Your task to perform on an android device: delete a single message in the gmail app Image 0: 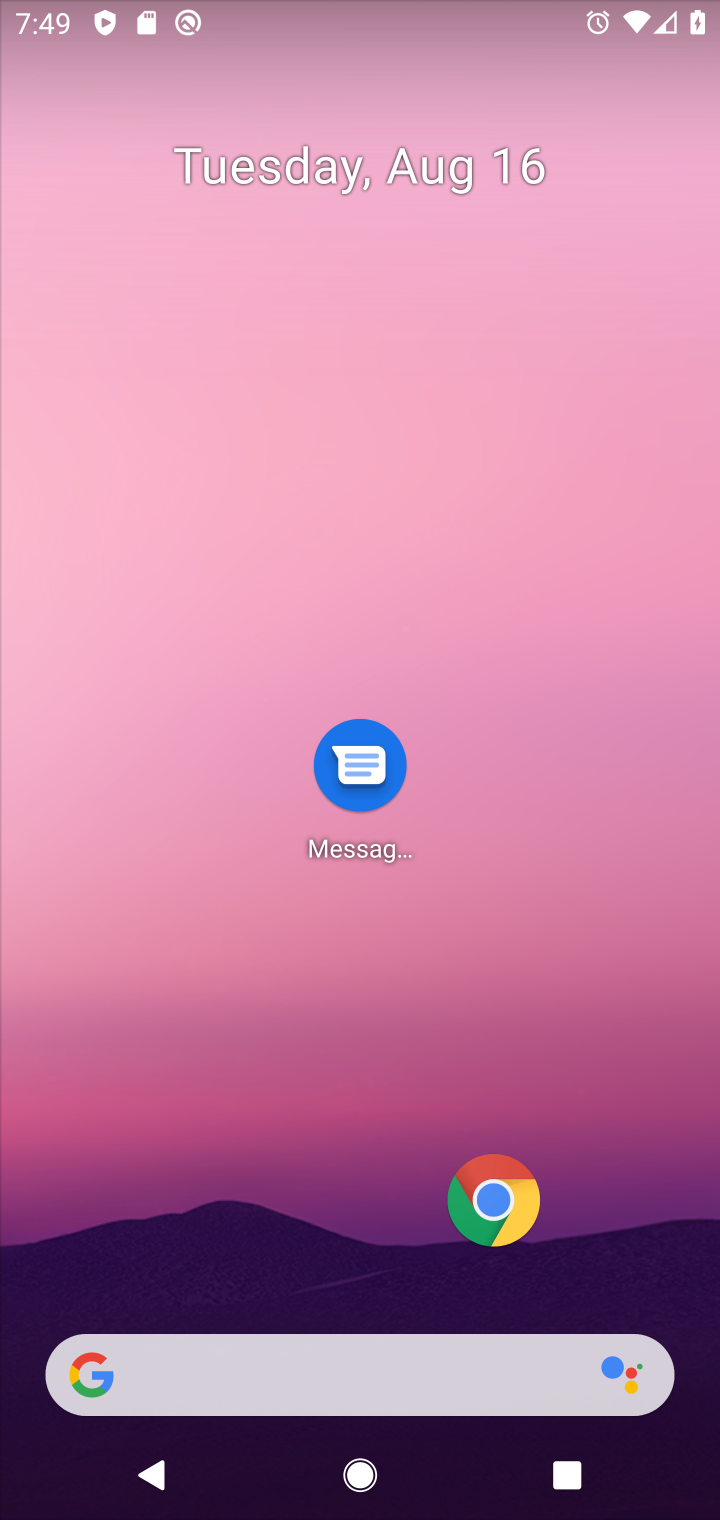
Step 0: drag from (80, 1407) to (665, 118)
Your task to perform on an android device: delete a single message in the gmail app Image 1: 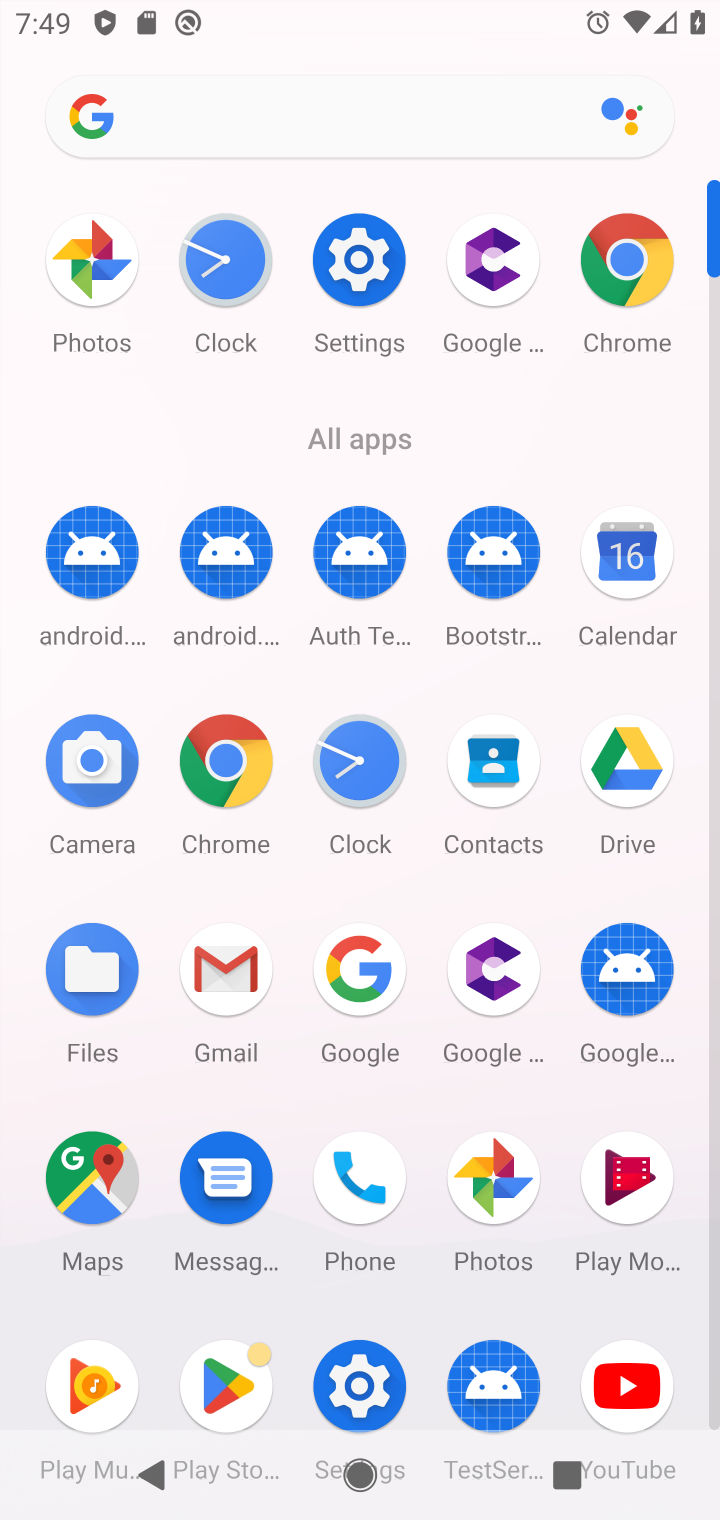
Step 1: click (208, 975)
Your task to perform on an android device: delete a single message in the gmail app Image 2: 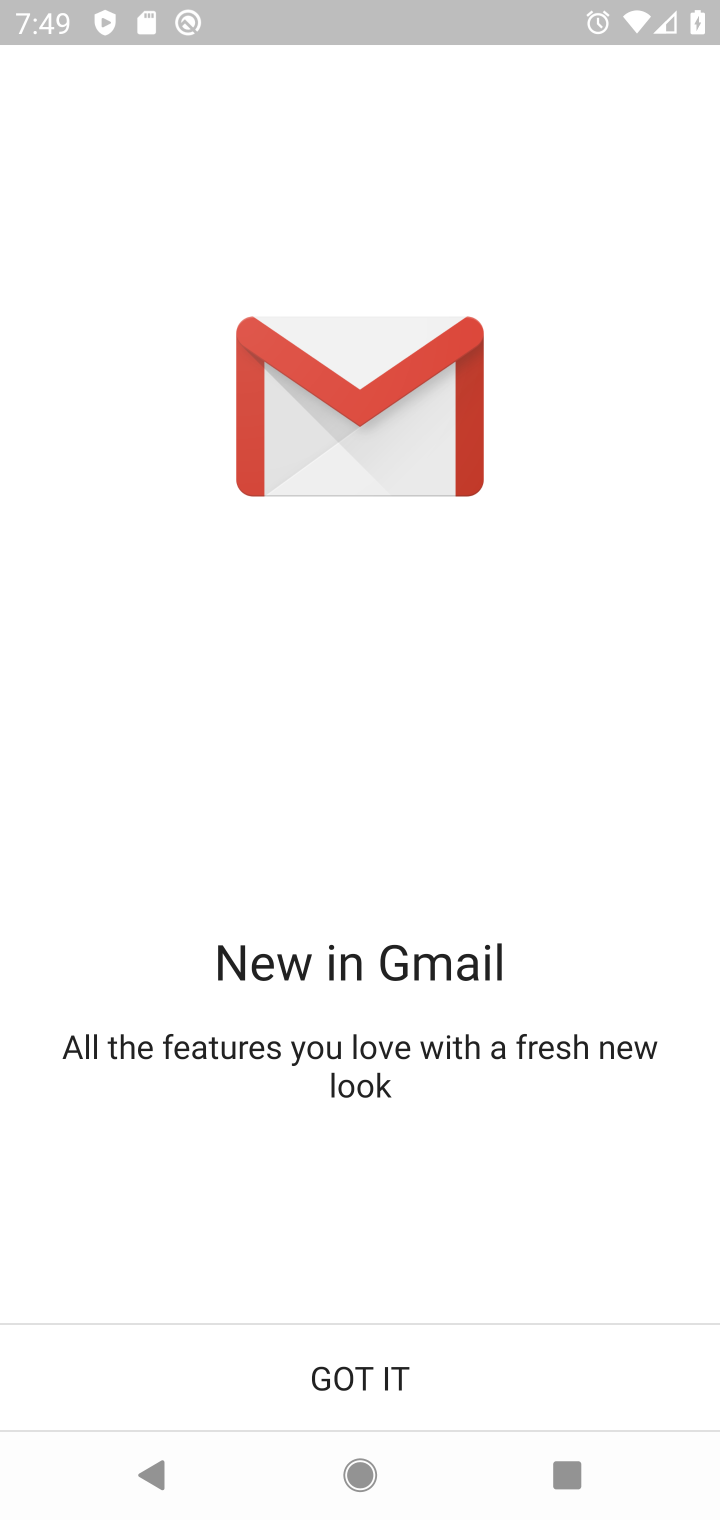
Step 2: click (360, 1375)
Your task to perform on an android device: delete a single message in the gmail app Image 3: 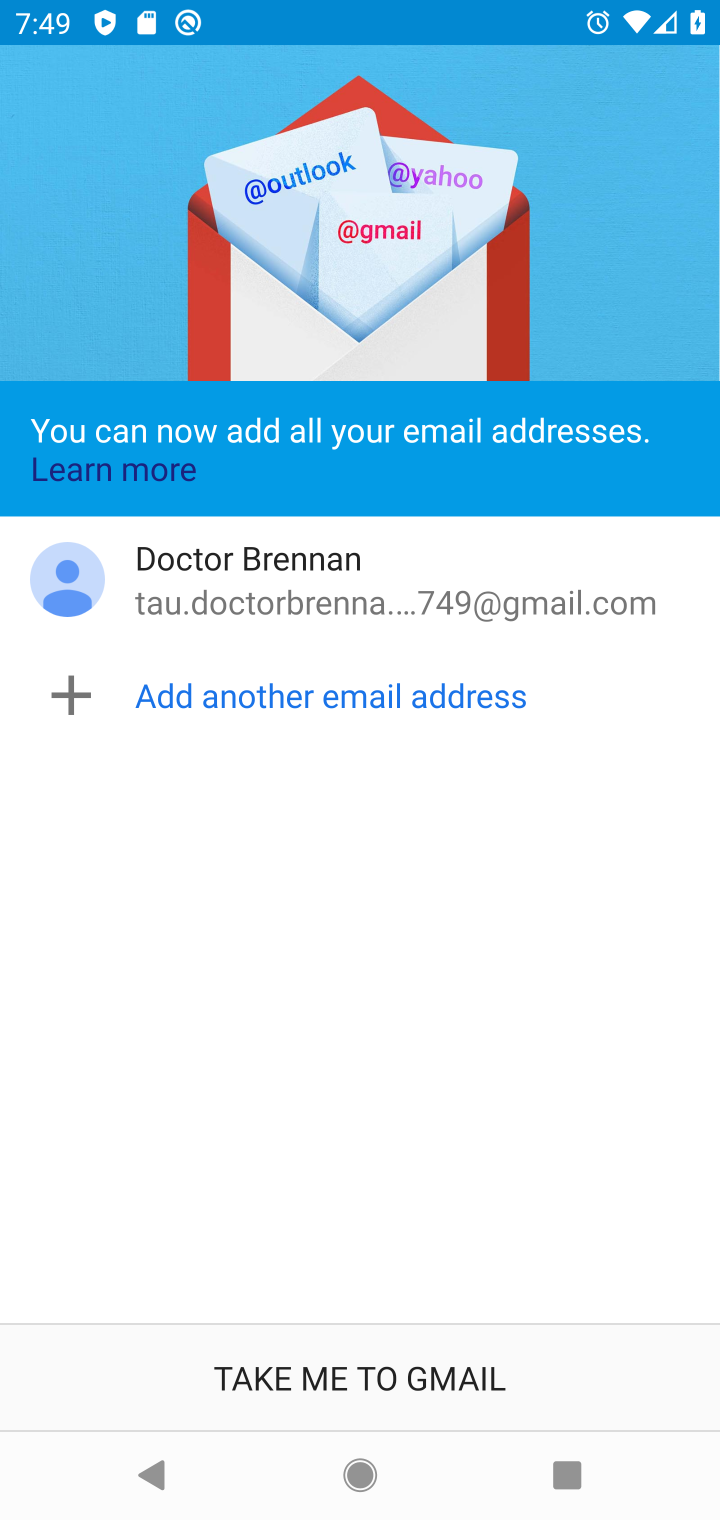
Step 3: click (360, 1375)
Your task to perform on an android device: delete a single message in the gmail app Image 4: 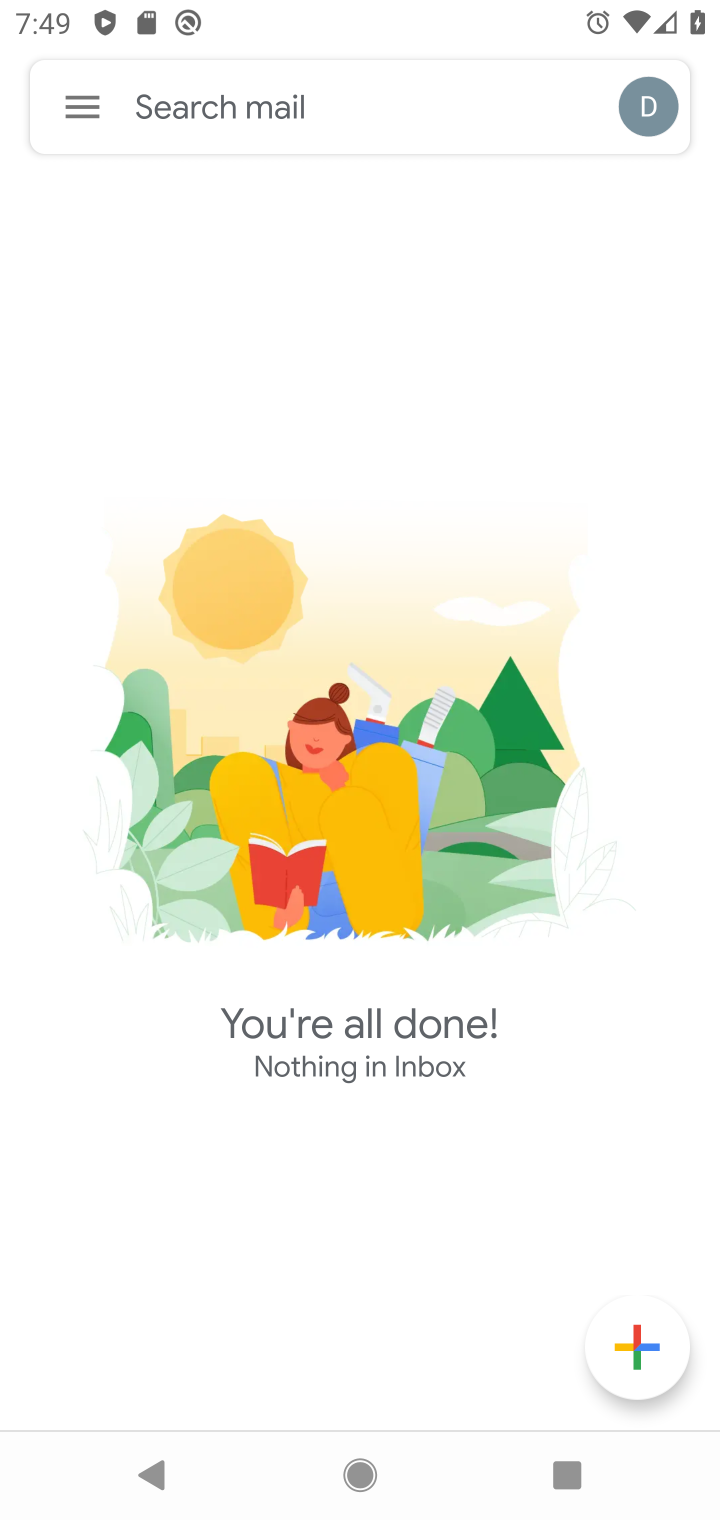
Step 4: click (83, 56)
Your task to perform on an android device: delete a single message in the gmail app Image 5: 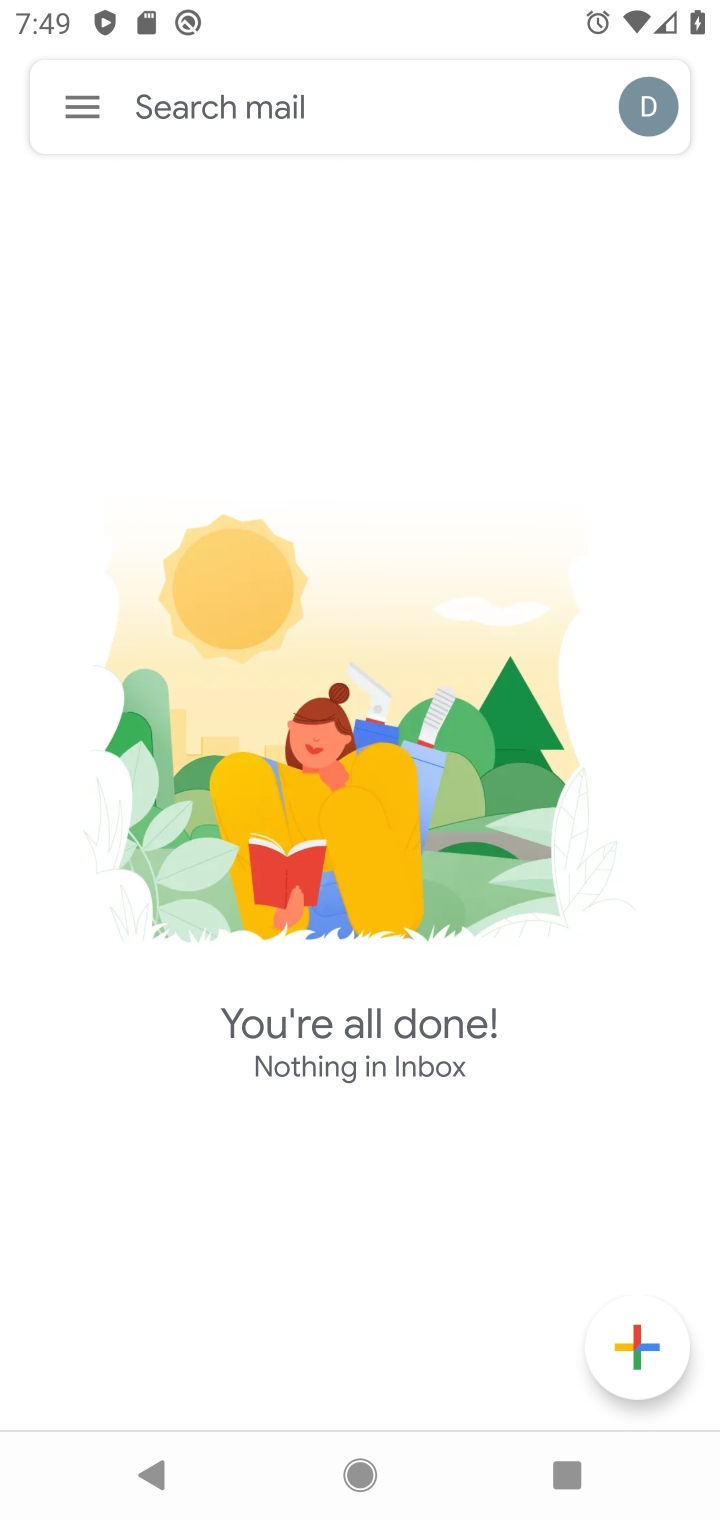
Step 5: click (99, 136)
Your task to perform on an android device: delete a single message in the gmail app Image 6: 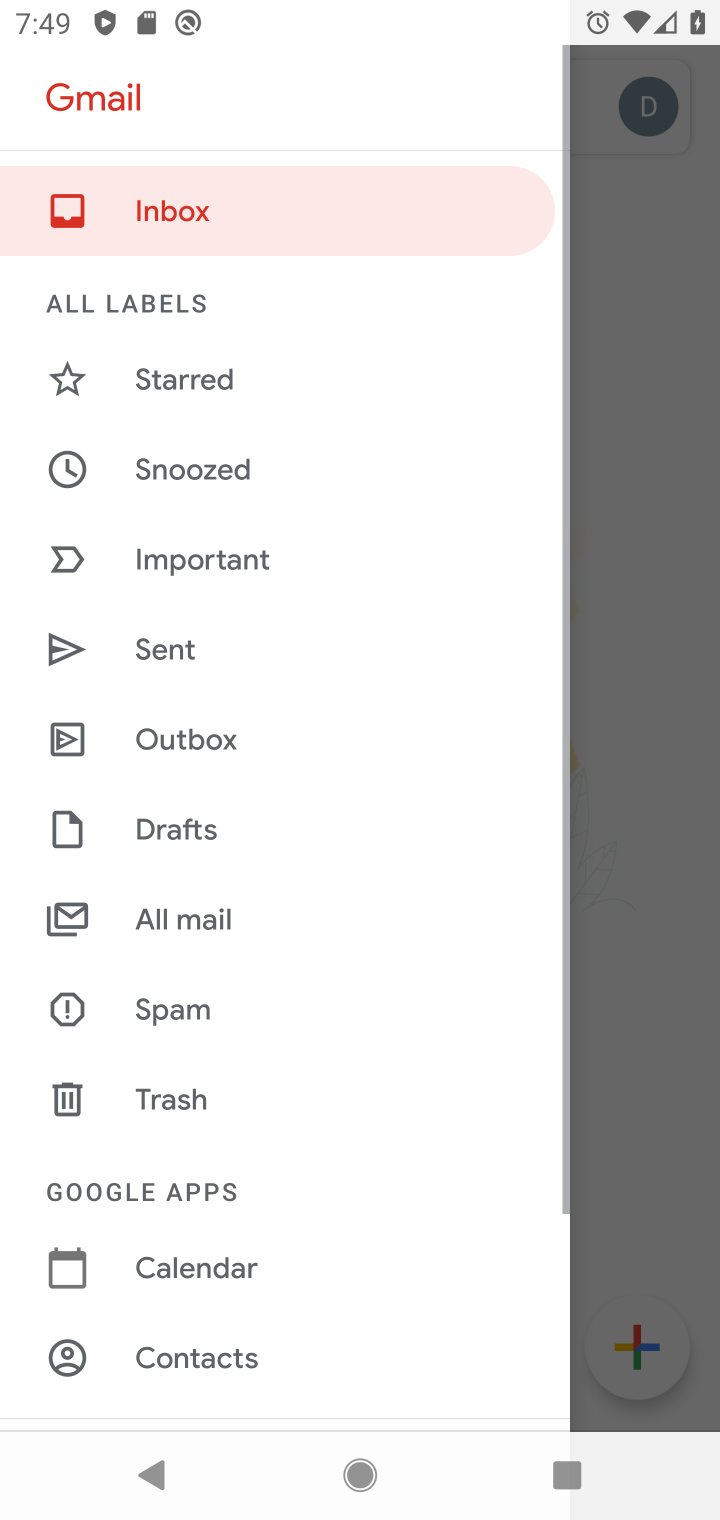
Step 6: click (84, 128)
Your task to perform on an android device: delete a single message in the gmail app Image 7: 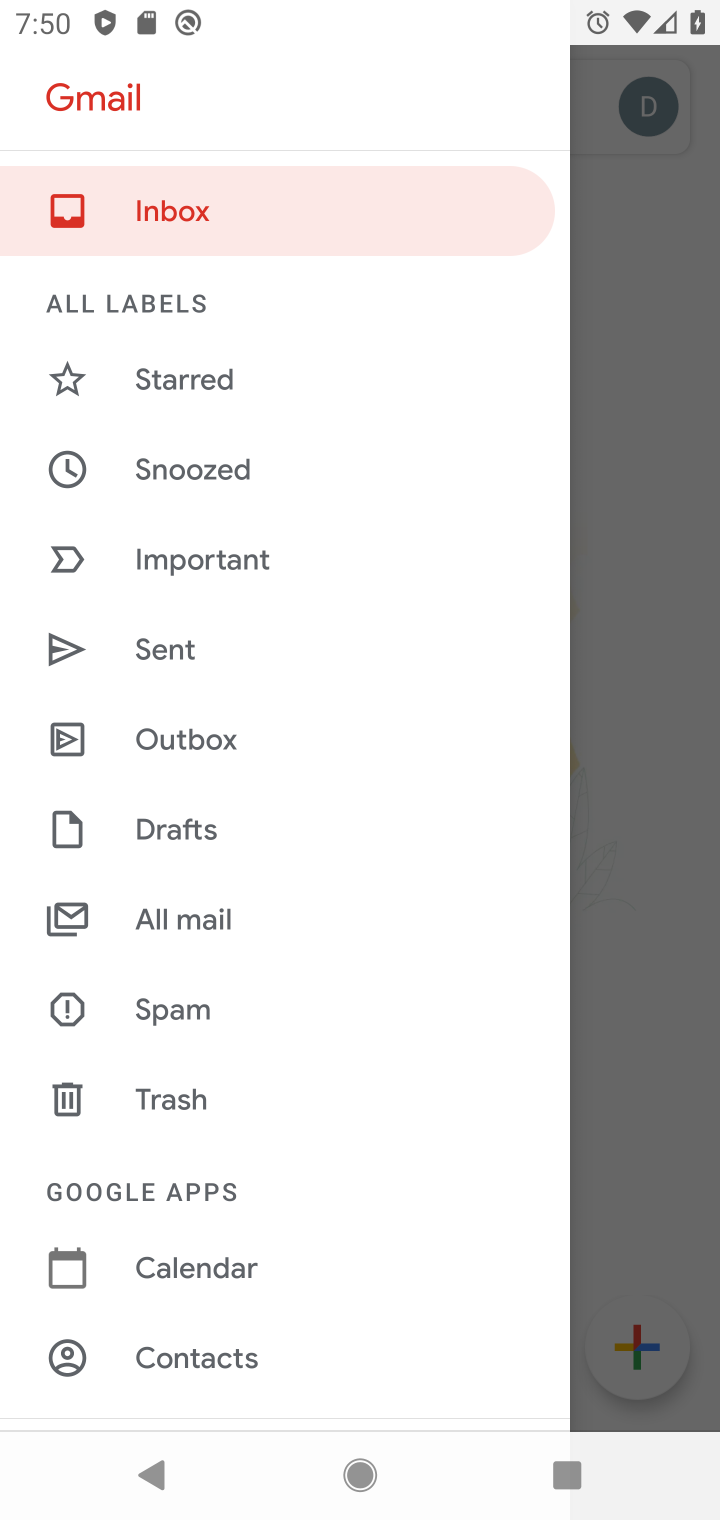
Step 7: click (295, 200)
Your task to perform on an android device: delete a single message in the gmail app Image 8: 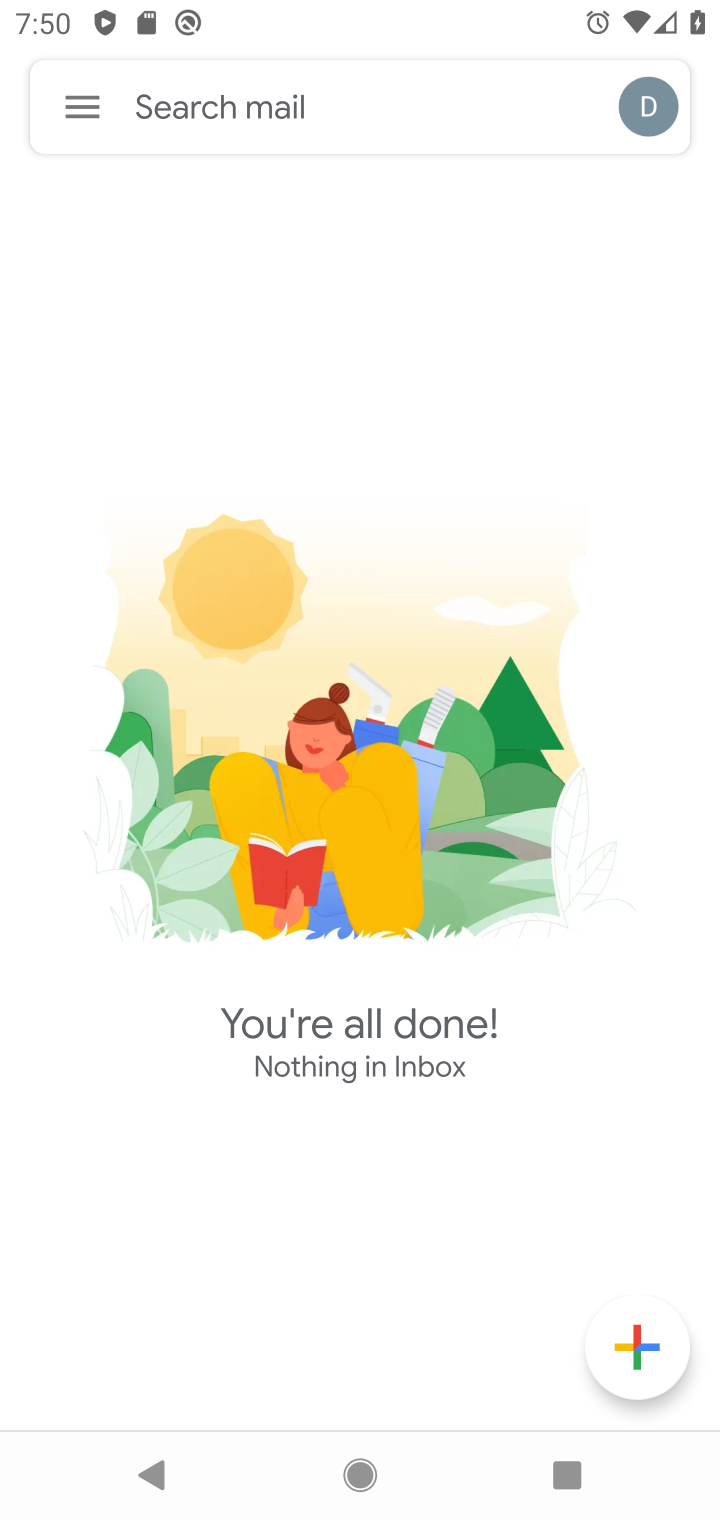
Step 8: task complete